Your task to perform on an android device: allow notifications from all sites in the chrome app Image 0: 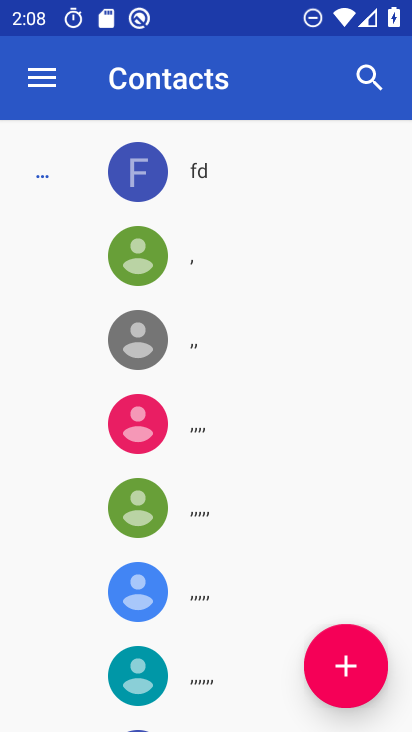
Step 0: press home button
Your task to perform on an android device: allow notifications from all sites in the chrome app Image 1: 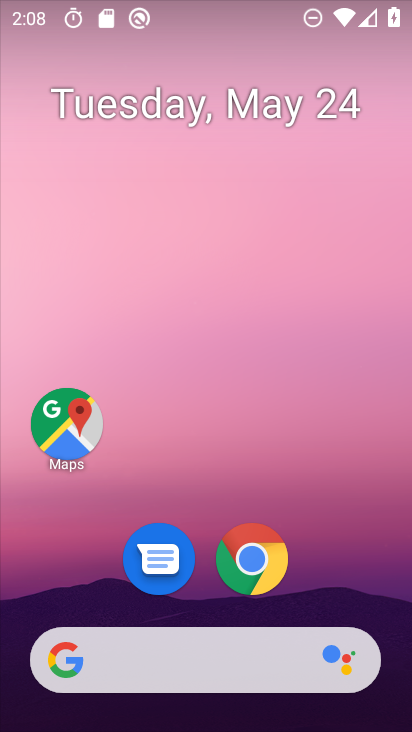
Step 1: click (264, 563)
Your task to perform on an android device: allow notifications from all sites in the chrome app Image 2: 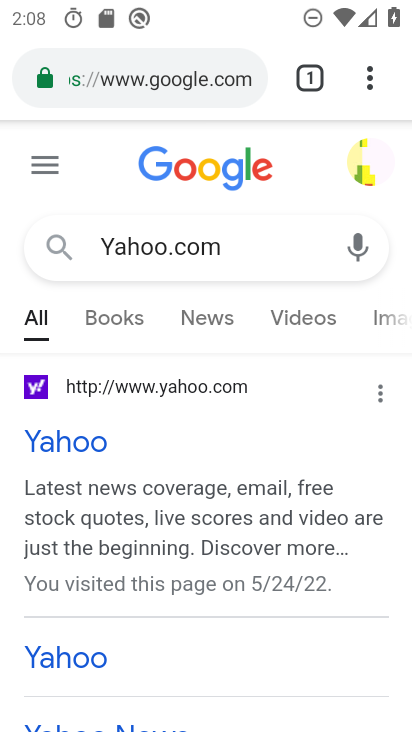
Step 2: click (371, 75)
Your task to perform on an android device: allow notifications from all sites in the chrome app Image 3: 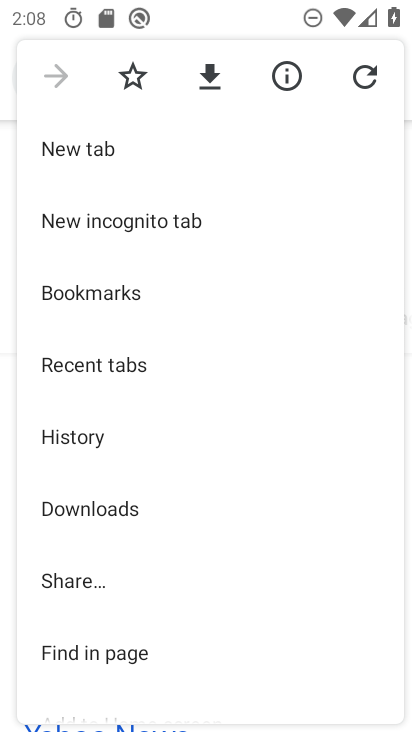
Step 3: press back button
Your task to perform on an android device: allow notifications from all sites in the chrome app Image 4: 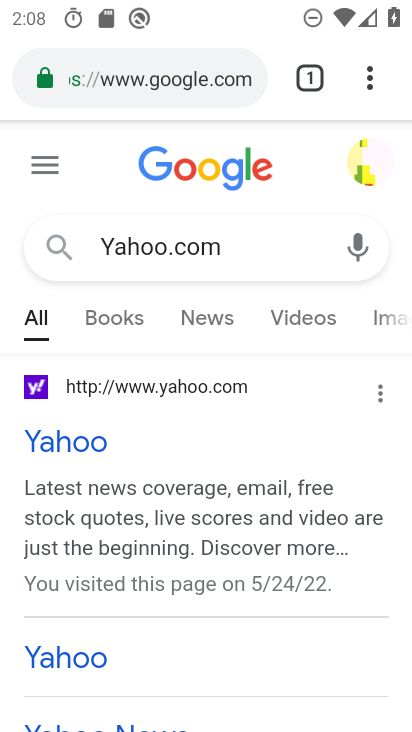
Step 4: click (368, 77)
Your task to perform on an android device: allow notifications from all sites in the chrome app Image 5: 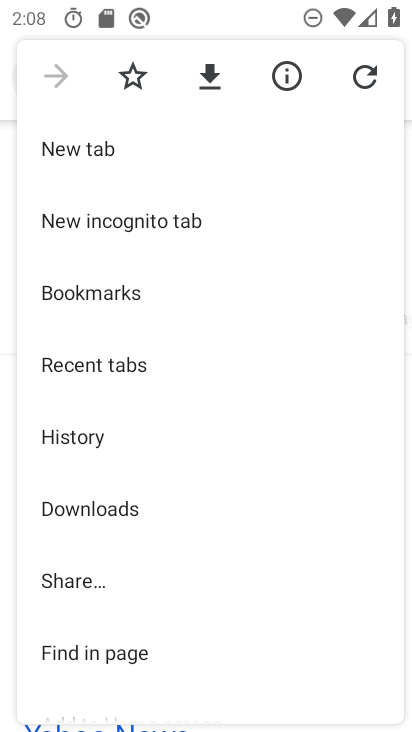
Step 5: drag from (257, 613) to (262, 350)
Your task to perform on an android device: allow notifications from all sites in the chrome app Image 6: 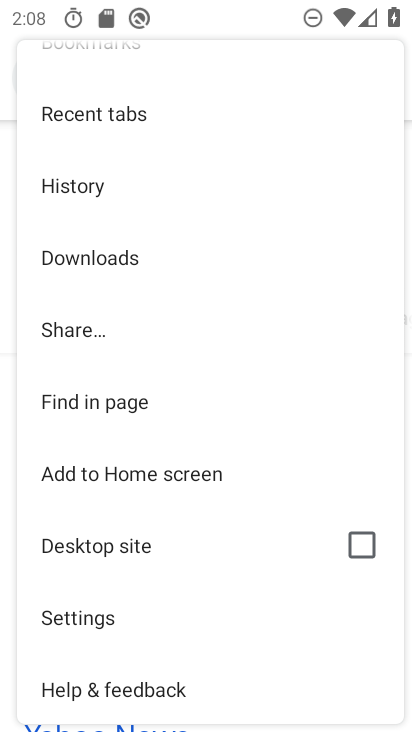
Step 6: click (91, 615)
Your task to perform on an android device: allow notifications from all sites in the chrome app Image 7: 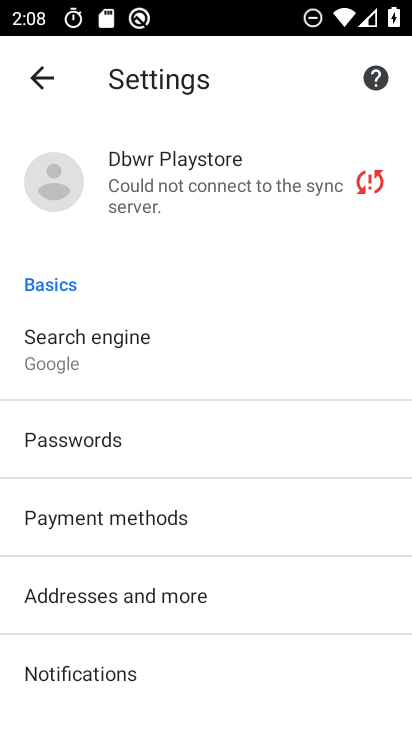
Step 7: drag from (194, 686) to (223, 392)
Your task to perform on an android device: allow notifications from all sites in the chrome app Image 8: 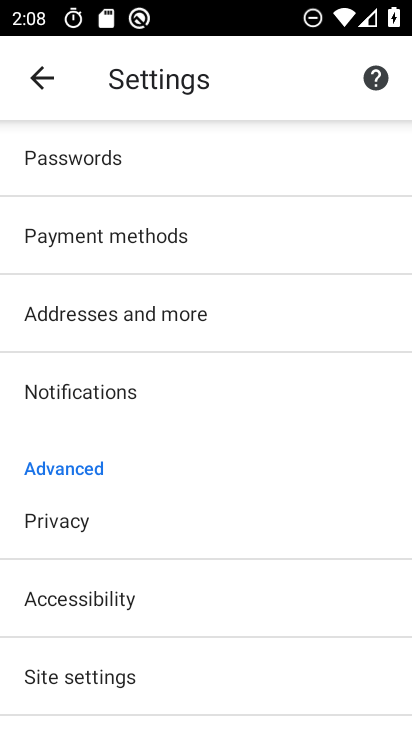
Step 8: click (107, 675)
Your task to perform on an android device: allow notifications from all sites in the chrome app Image 9: 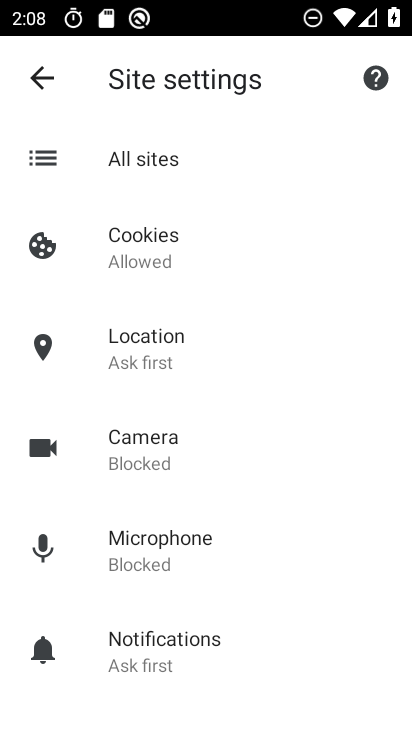
Step 9: click (177, 643)
Your task to perform on an android device: allow notifications from all sites in the chrome app Image 10: 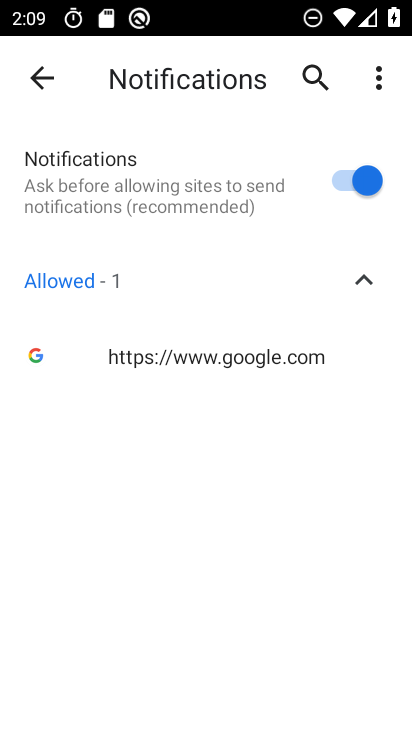
Step 10: task complete